Your task to perform on an android device: turn off notifications settings in the gmail app Image 0: 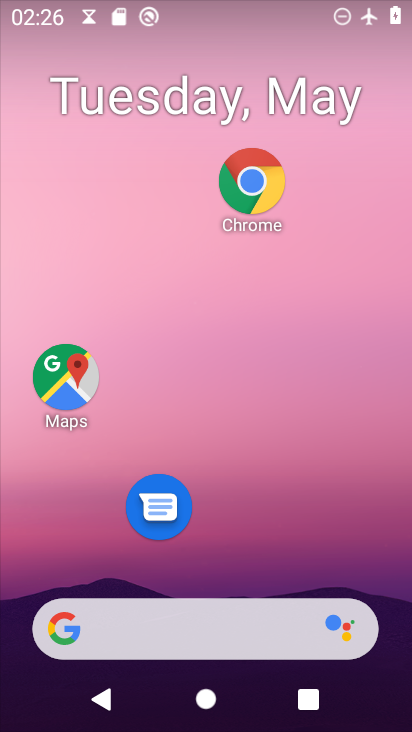
Step 0: drag from (277, 520) to (360, 226)
Your task to perform on an android device: turn off notifications settings in the gmail app Image 1: 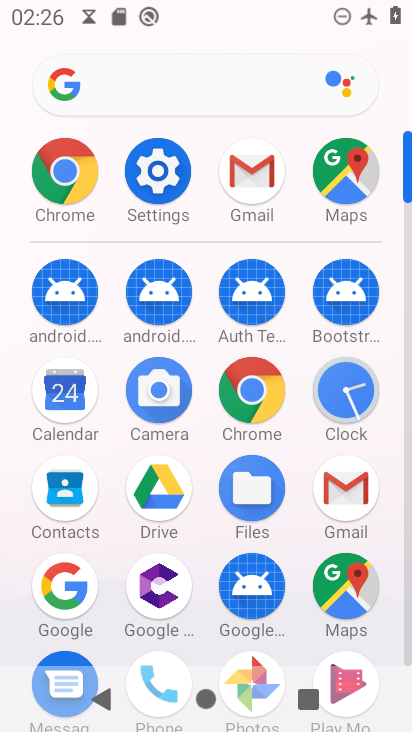
Step 1: click (245, 160)
Your task to perform on an android device: turn off notifications settings in the gmail app Image 2: 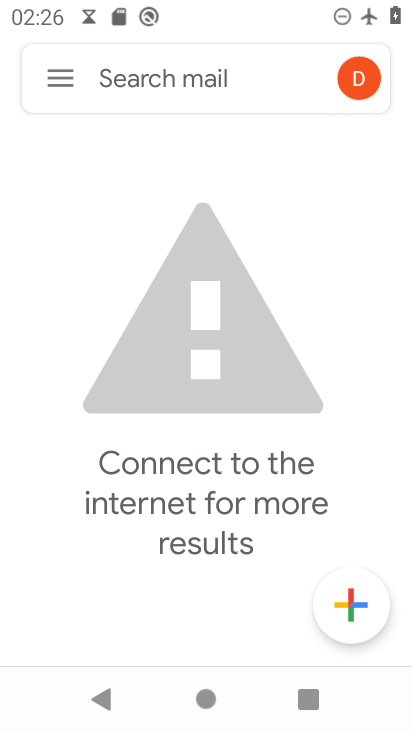
Step 2: click (50, 74)
Your task to perform on an android device: turn off notifications settings in the gmail app Image 3: 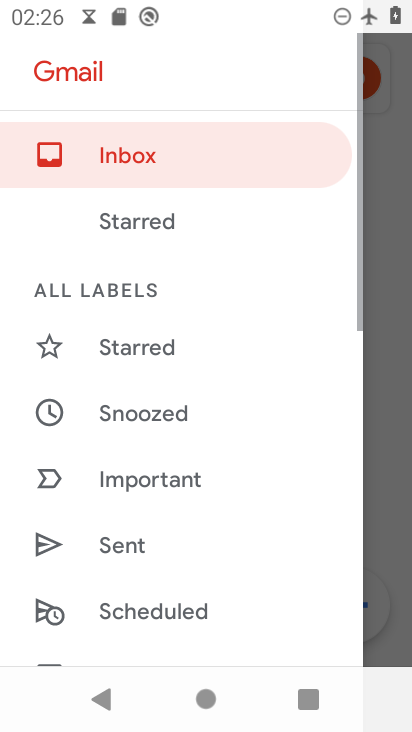
Step 3: drag from (197, 546) to (246, 188)
Your task to perform on an android device: turn off notifications settings in the gmail app Image 4: 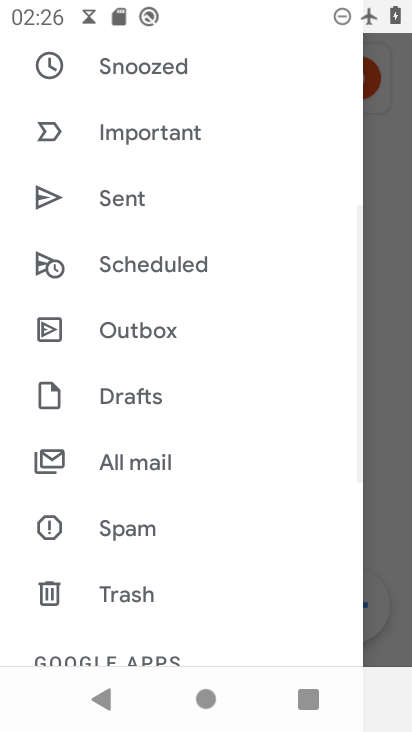
Step 4: drag from (194, 530) to (253, 170)
Your task to perform on an android device: turn off notifications settings in the gmail app Image 5: 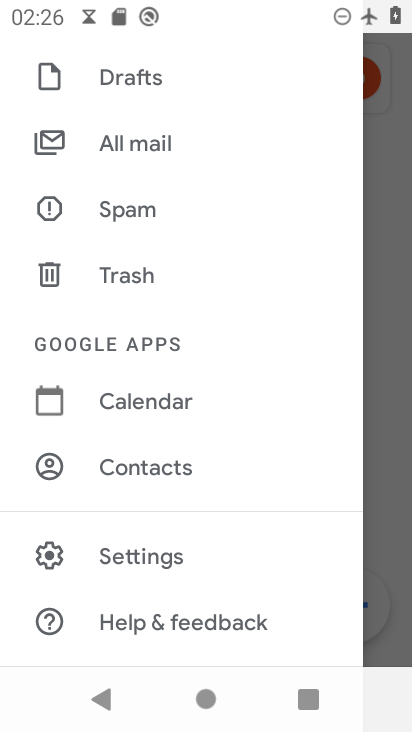
Step 5: click (200, 568)
Your task to perform on an android device: turn off notifications settings in the gmail app Image 6: 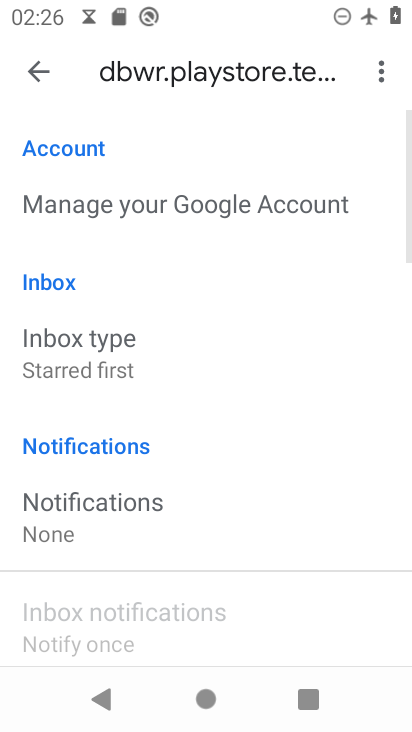
Step 6: click (152, 511)
Your task to perform on an android device: turn off notifications settings in the gmail app Image 7: 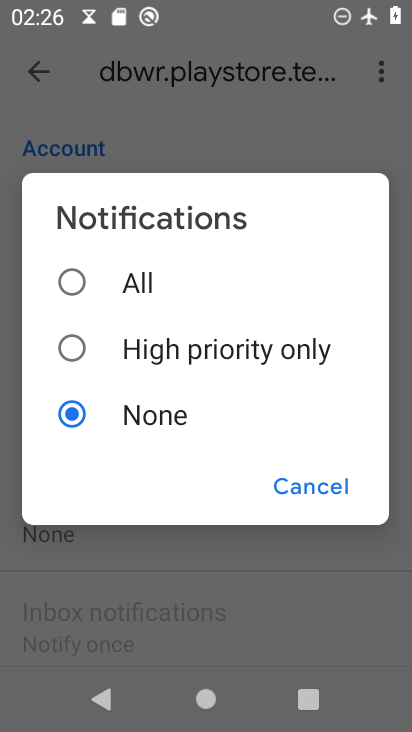
Step 7: task complete